Your task to perform on an android device: Search for "acer nitro" on costco, select the first entry, add it to the cart, then select checkout. Image 0: 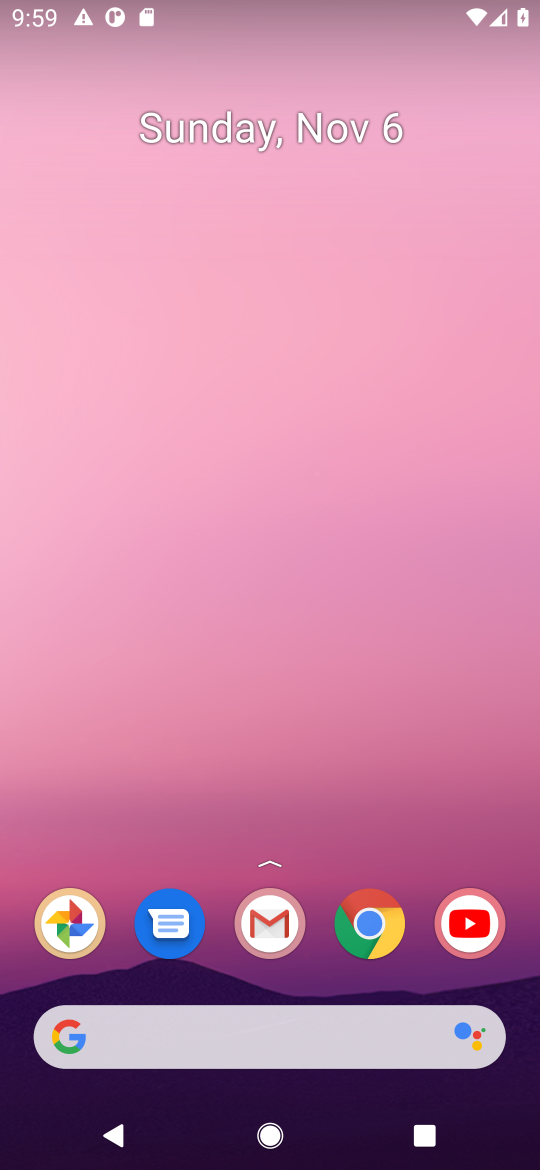
Step 0: click (367, 932)
Your task to perform on an android device: Search for "acer nitro" on costco, select the first entry, add it to the cart, then select checkout. Image 1: 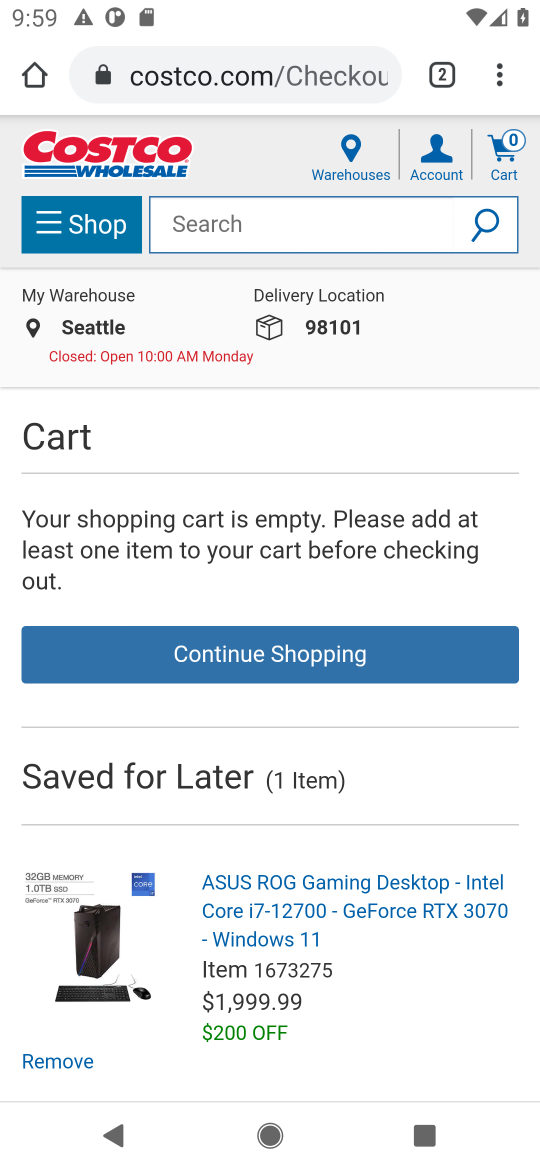
Step 1: click (299, 221)
Your task to perform on an android device: Search for "acer nitro" on costco, select the first entry, add it to the cart, then select checkout. Image 2: 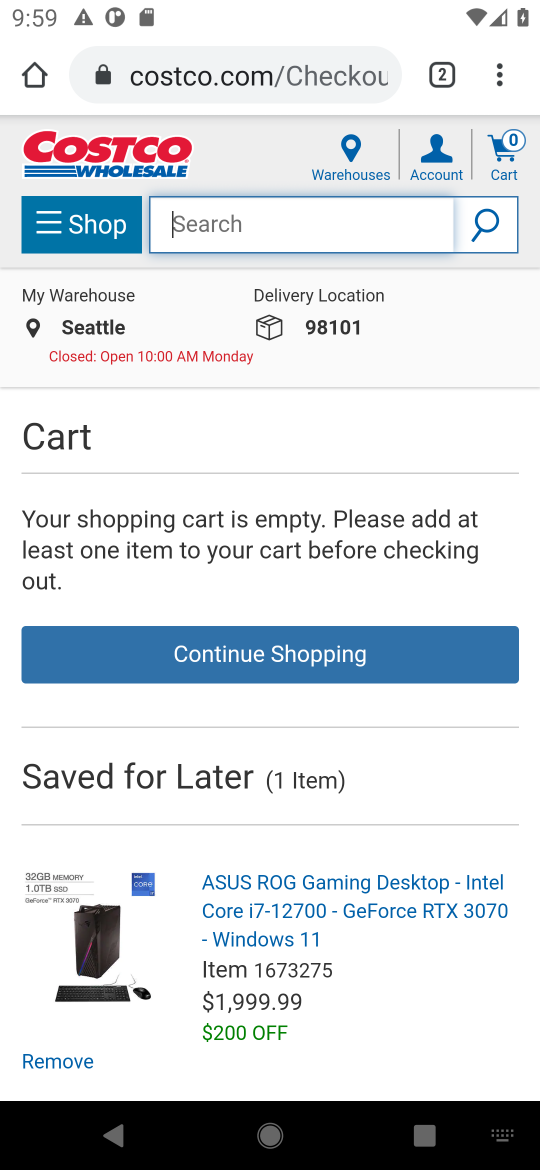
Step 2: type "acer nitro"
Your task to perform on an android device: Search for "acer nitro" on costco, select the first entry, add it to the cart, then select checkout. Image 3: 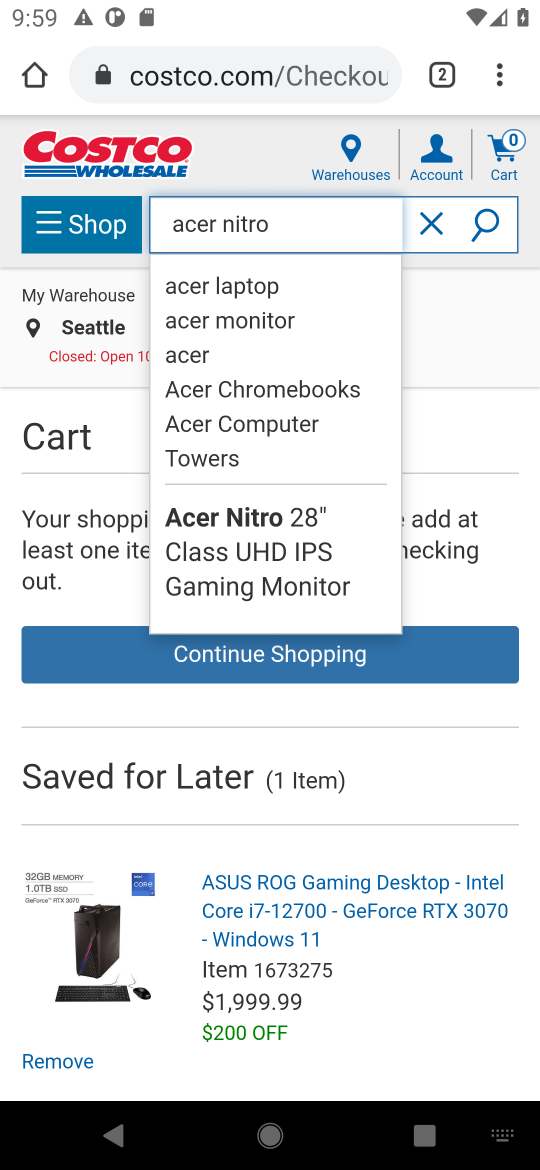
Step 3: click (483, 225)
Your task to perform on an android device: Search for "acer nitro" on costco, select the first entry, add it to the cart, then select checkout. Image 4: 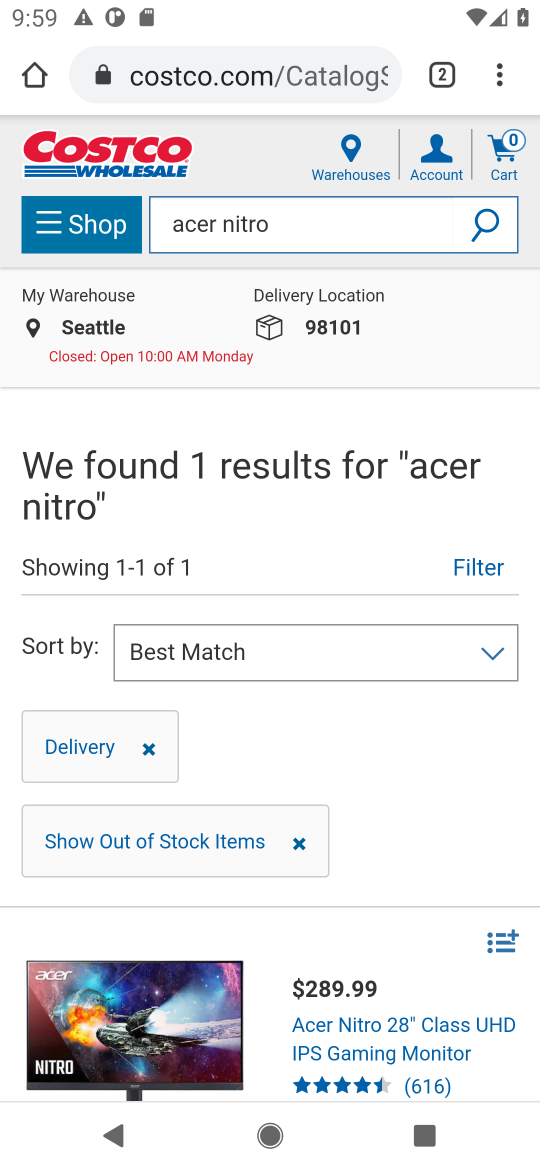
Step 4: drag from (366, 845) to (376, 421)
Your task to perform on an android device: Search for "acer nitro" on costco, select the first entry, add it to the cart, then select checkout. Image 5: 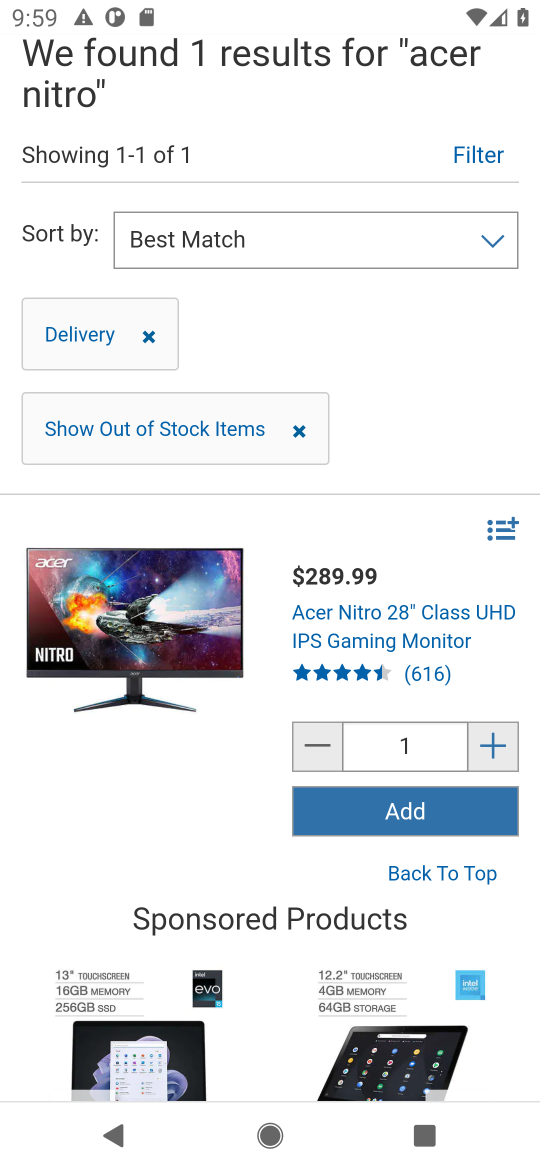
Step 5: click (402, 809)
Your task to perform on an android device: Search for "acer nitro" on costco, select the first entry, add it to the cart, then select checkout. Image 6: 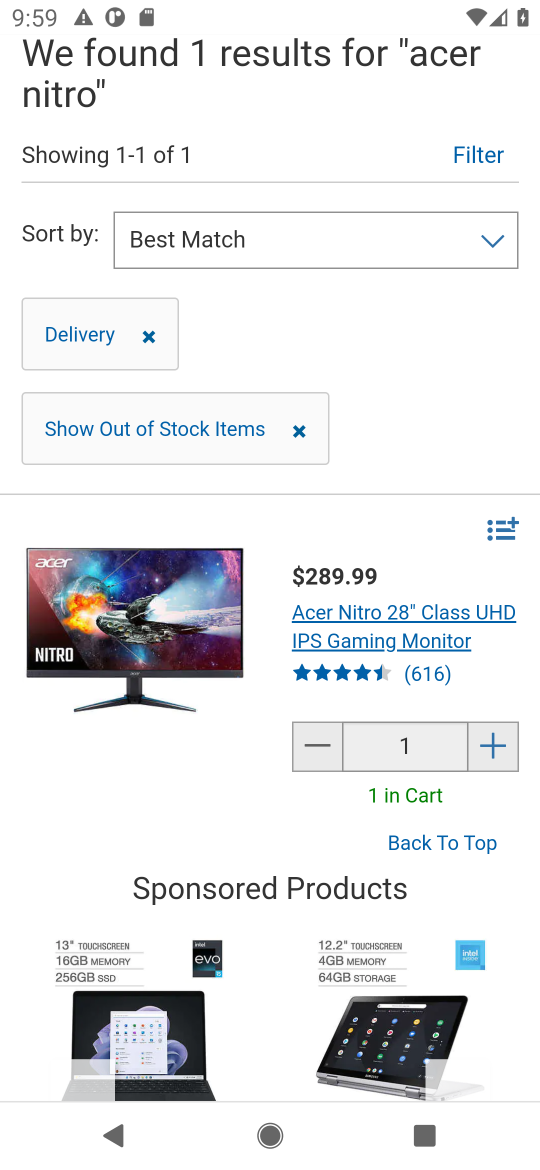
Step 6: drag from (383, 345) to (387, 782)
Your task to perform on an android device: Search for "acer nitro" on costco, select the first entry, add it to the cart, then select checkout. Image 7: 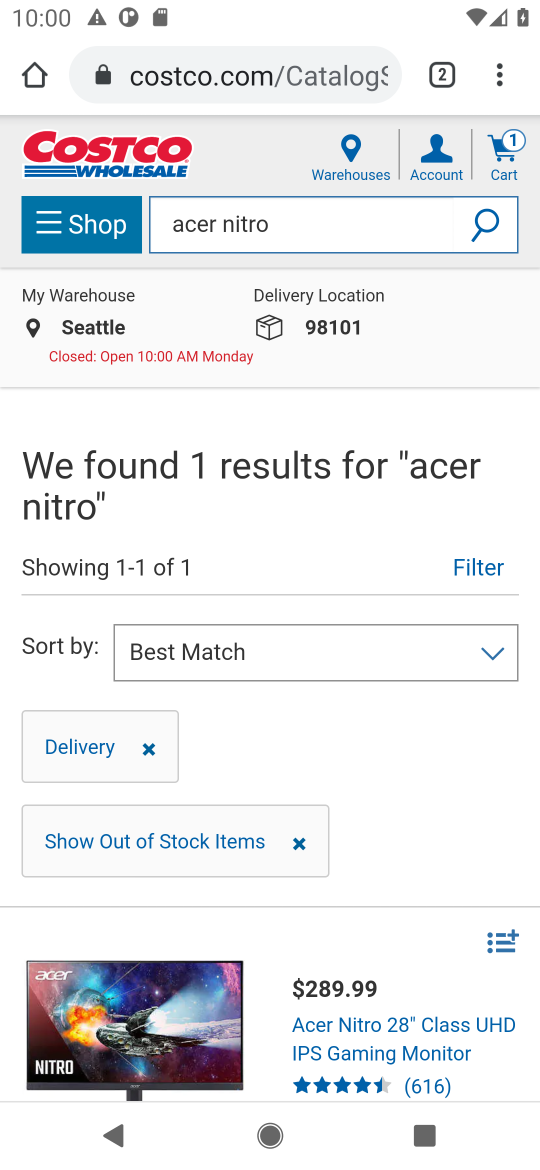
Step 7: click (499, 151)
Your task to perform on an android device: Search for "acer nitro" on costco, select the first entry, add it to the cart, then select checkout. Image 8: 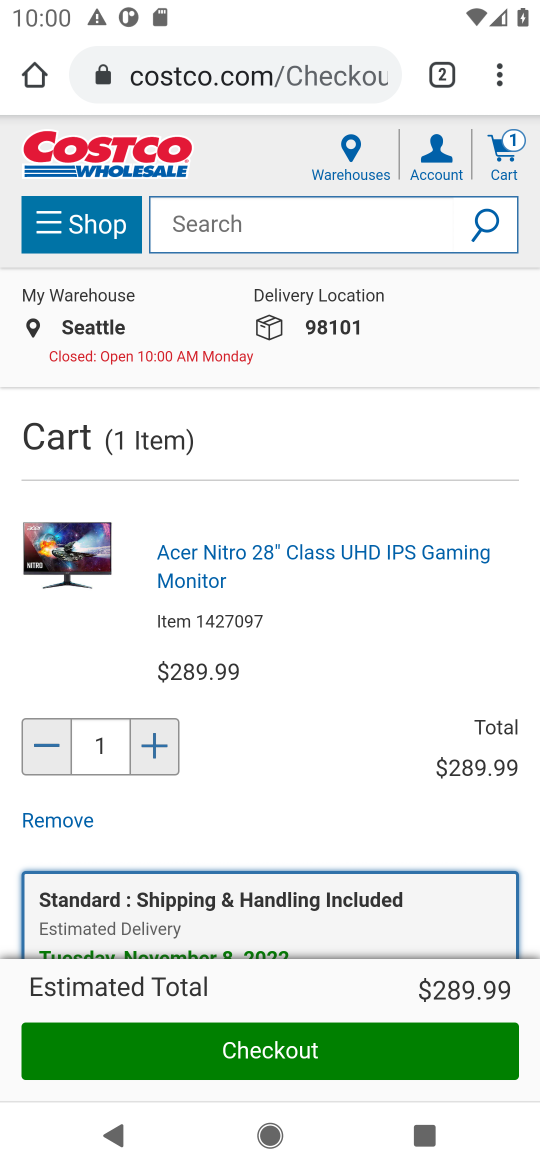
Step 8: drag from (315, 588) to (318, 458)
Your task to perform on an android device: Search for "acer nitro" on costco, select the first entry, add it to the cart, then select checkout. Image 9: 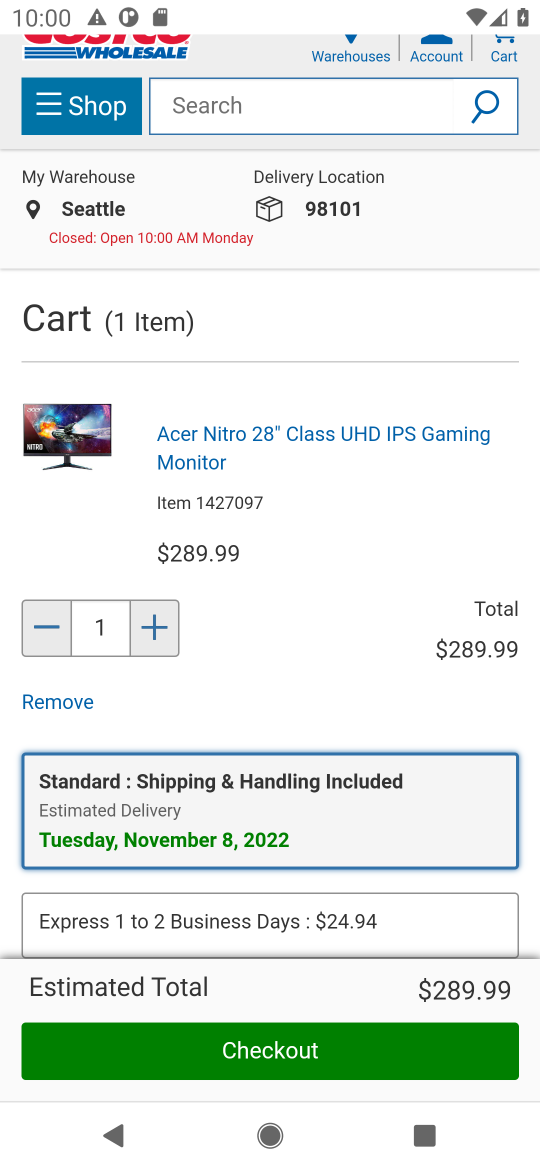
Step 9: click (278, 1055)
Your task to perform on an android device: Search for "acer nitro" on costco, select the first entry, add it to the cart, then select checkout. Image 10: 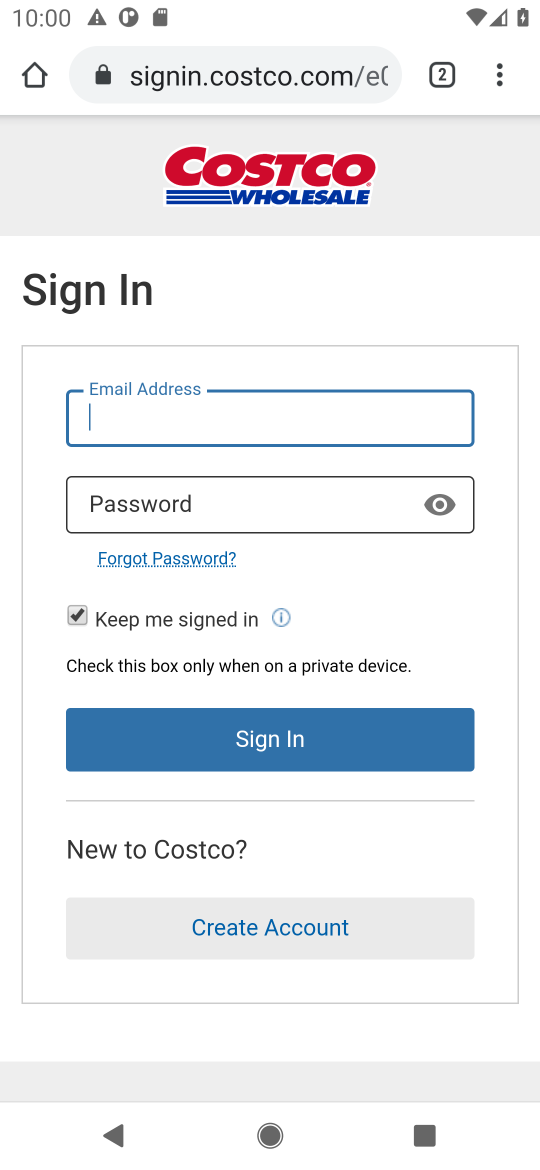
Step 10: task complete